Your task to perform on an android device: set the stopwatch Image 0: 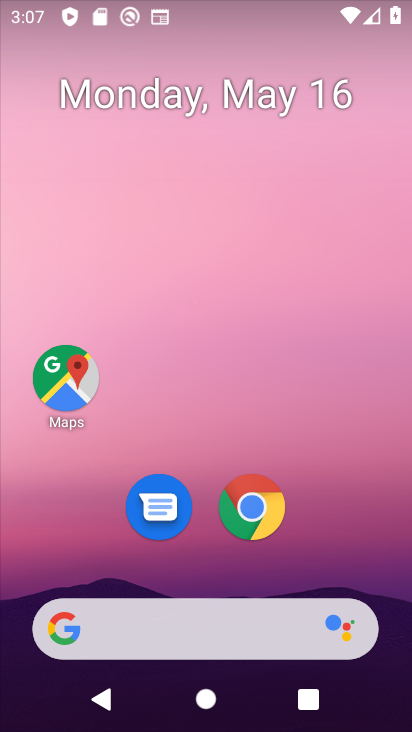
Step 0: drag from (382, 457) to (357, 72)
Your task to perform on an android device: set the stopwatch Image 1: 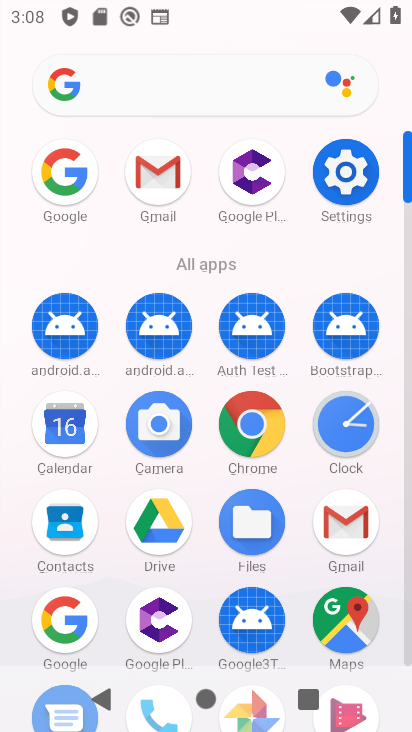
Step 1: click (337, 439)
Your task to perform on an android device: set the stopwatch Image 2: 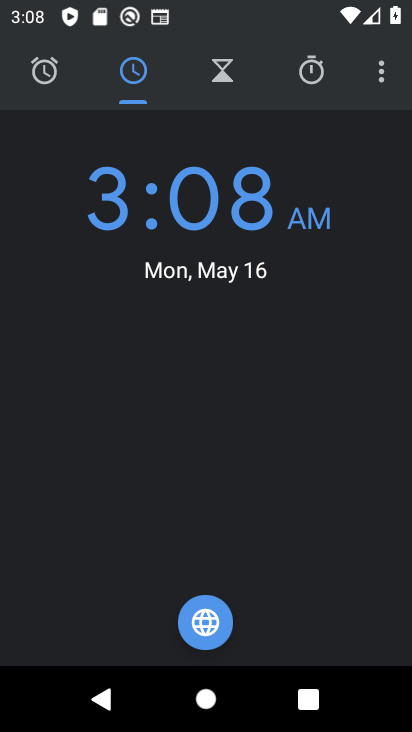
Step 2: click (311, 85)
Your task to perform on an android device: set the stopwatch Image 3: 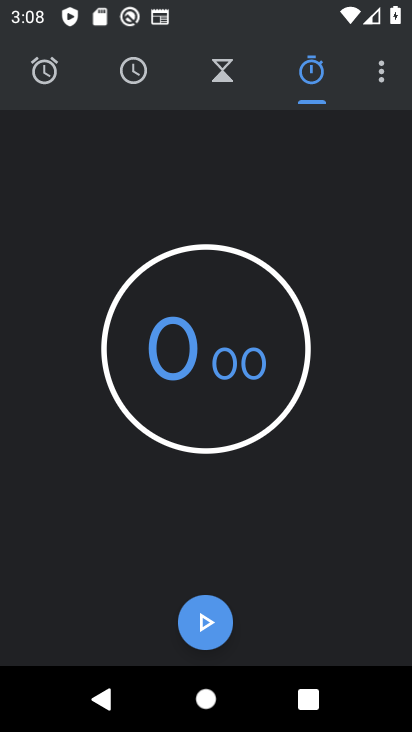
Step 3: click (183, 633)
Your task to perform on an android device: set the stopwatch Image 4: 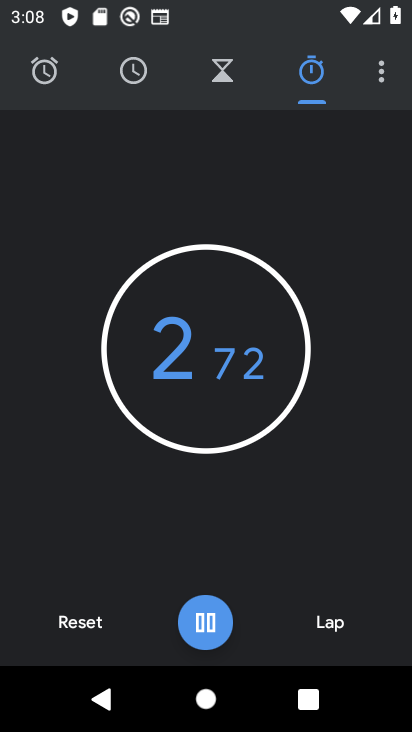
Step 4: task complete